Your task to perform on an android device: check battery use Image 0: 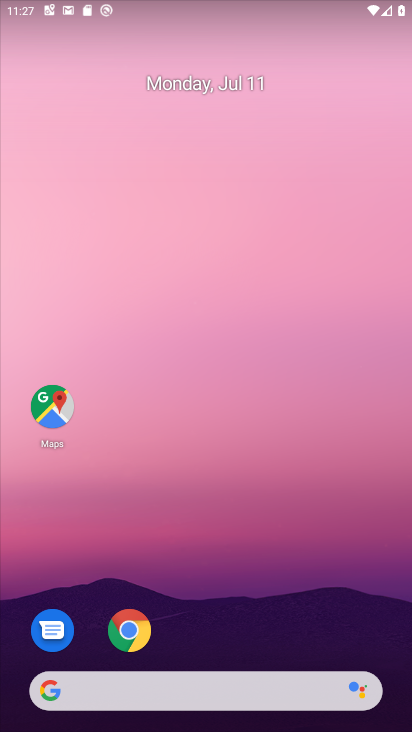
Step 0: drag from (337, 167) to (351, 95)
Your task to perform on an android device: check battery use Image 1: 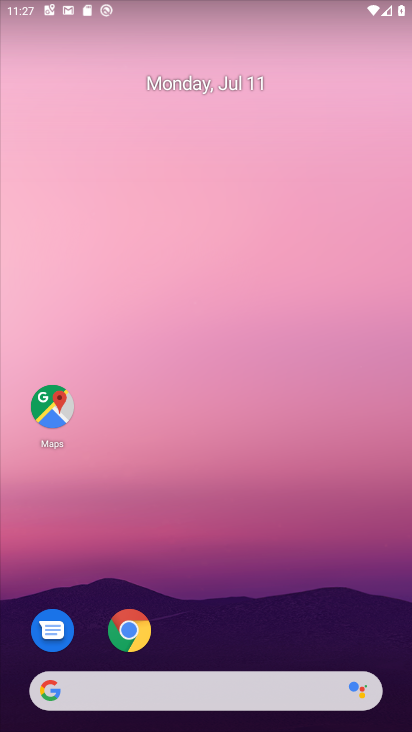
Step 1: drag from (320, 590) to (280, 29)
Your task to perform on an android device: check battery use Image 2: 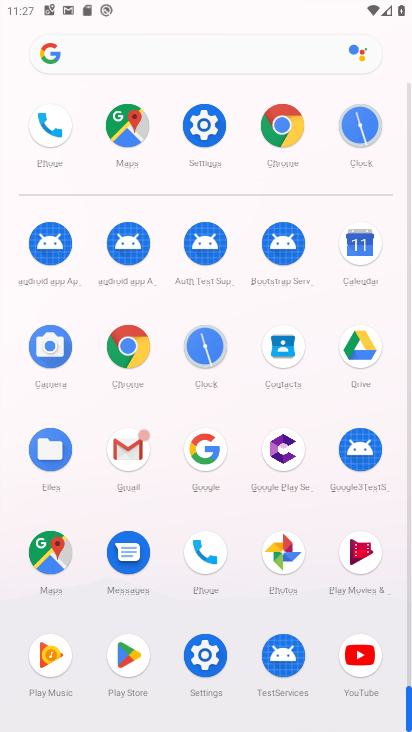
Step 2: click (205, 139)
Your task to perform on an android device: check battery use Image 3: 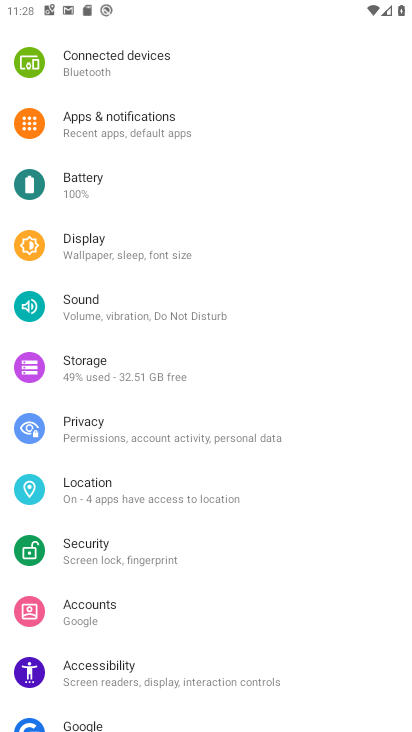
Step 3: click (126, 184)
Your task to perform on an android device: check battery use Image 4: 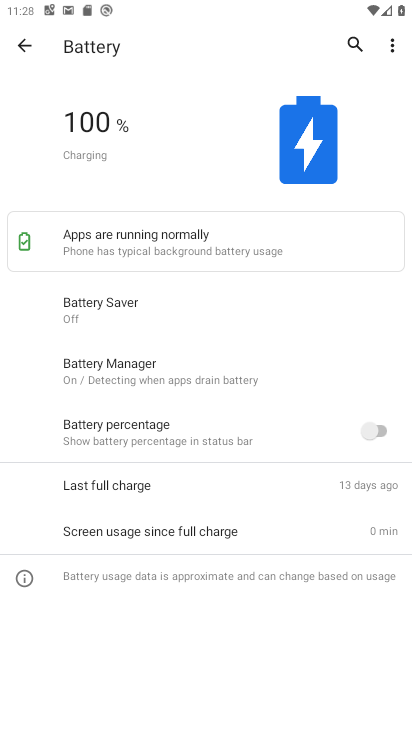
Step 4: task complete